Your task to perform on an android device: turn on the 12-hour format for clock Image 0: 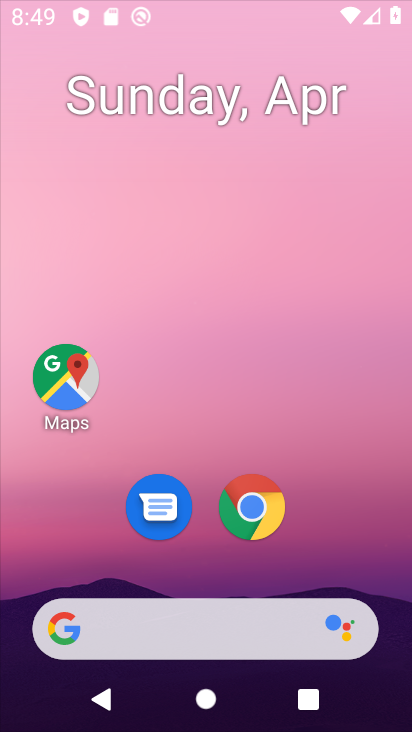
Step 0: click (217, 46)
Your task to perform on an android device: turn on the 12-hour format for clock Image 1: 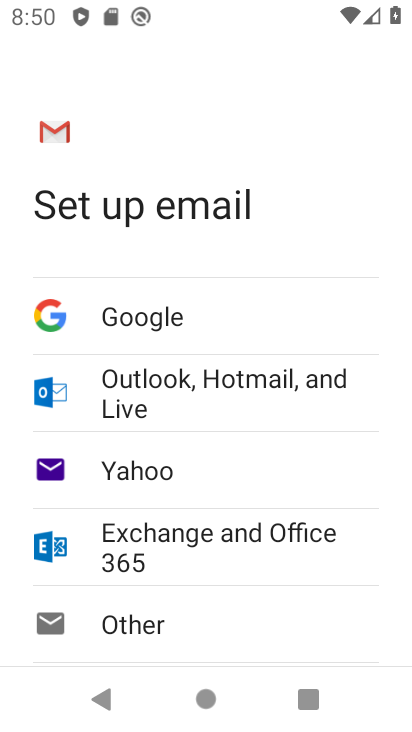
Step 1: press home button
Your task to perform on an android device: turn on the 12-hour format for clock Image 2: 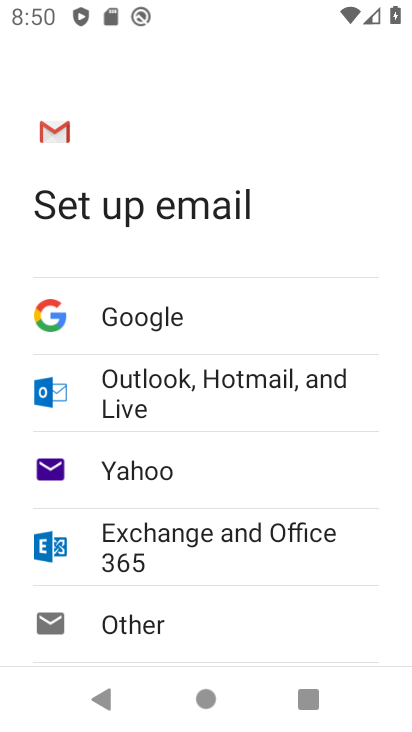
Step 2: drag from (217, 46) to (370, 370)
Your task to perform on an android device: turn on the 12-hour format for clock Image 3: 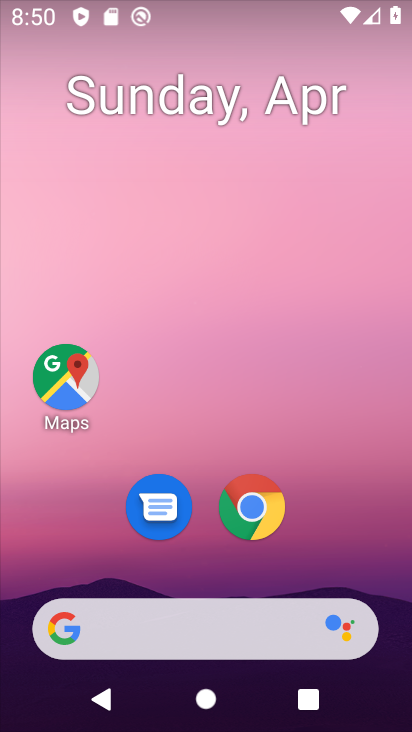
Step 3: drag from (225, 617) to (276, 257)
Your task to perform on an android device: turn on the 12-hour format for clock Image 4: 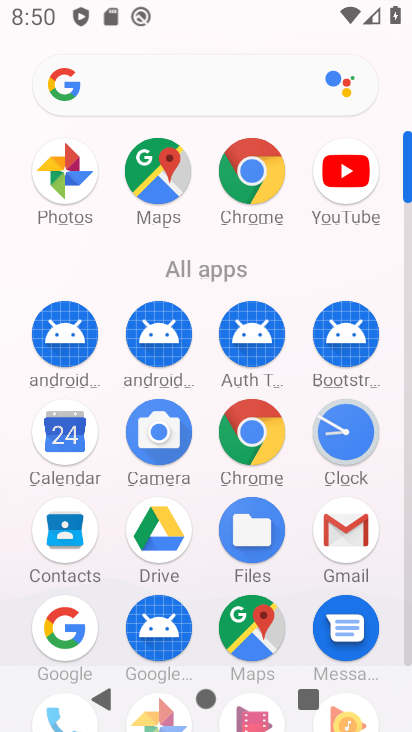
Step 4: click (345, 437)
Your task to perform on an android device: turn on the 12-hour format for clock Image 5: 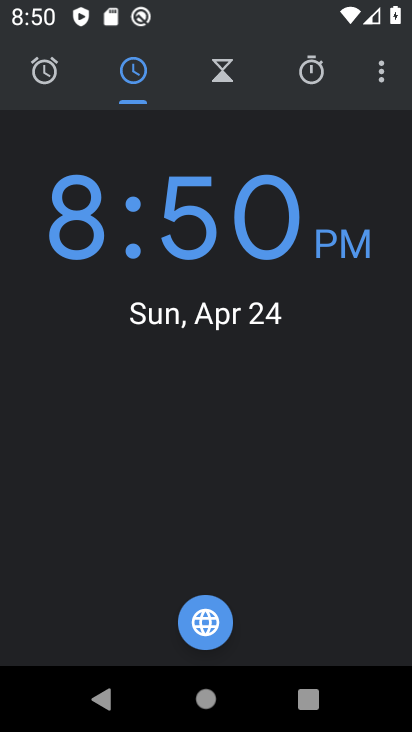
Step 5: click (376, 85)
Your task to perform on an android device: turn on the 12-hour format for clock Image 6: 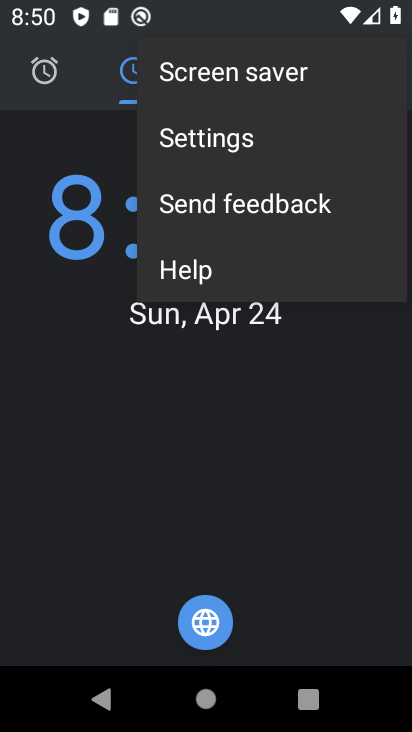
Step 6: click (310, 141)
Your task to perform on an android device: turn on the 12-hour format for clock Image 7: 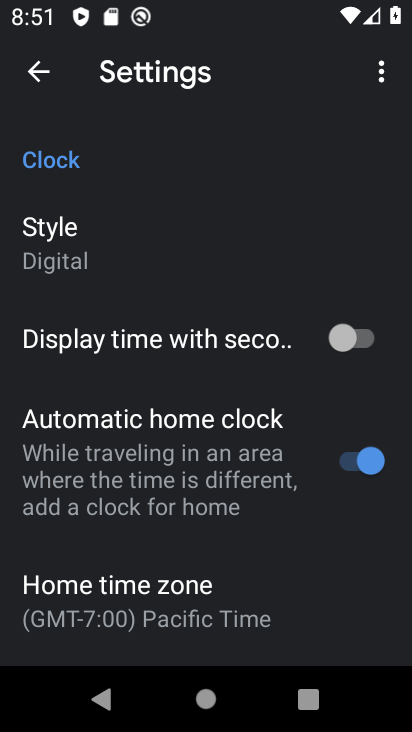
Step 7: drag from (226, 376) to (230, 53)
Your task to perform on an android device: turn on the 12-hour format for clock Image 8: 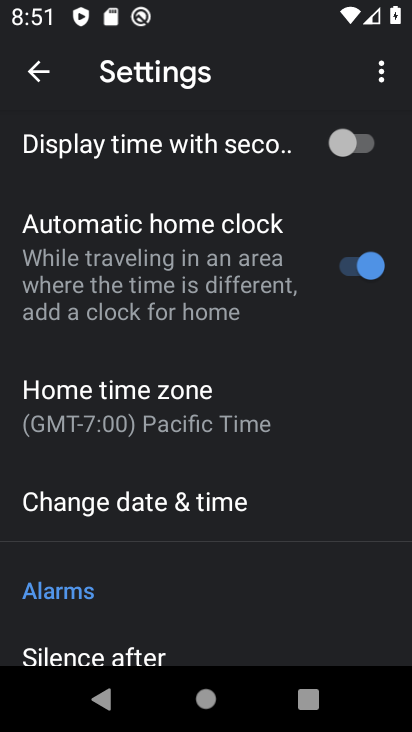
Step 8: click (225, 514)
Your task to perform on an android device: turn on the 12-hour format for clock Image 9: 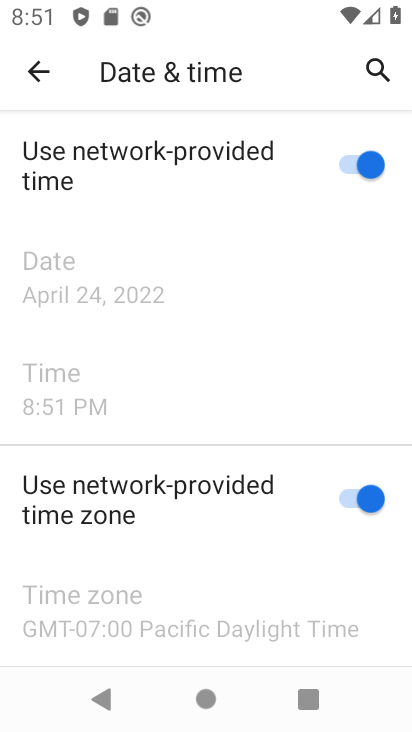
Step 9: task complete